Your task to perform on an android device: What's the weather going to be tomorrow? Image 0: 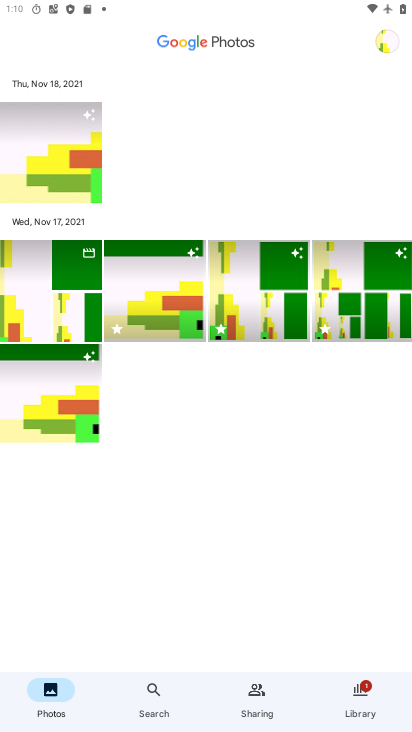
Step 0: press home button
Your task to perform on an android device: What's the weather going to be tomorrow? Image 1: 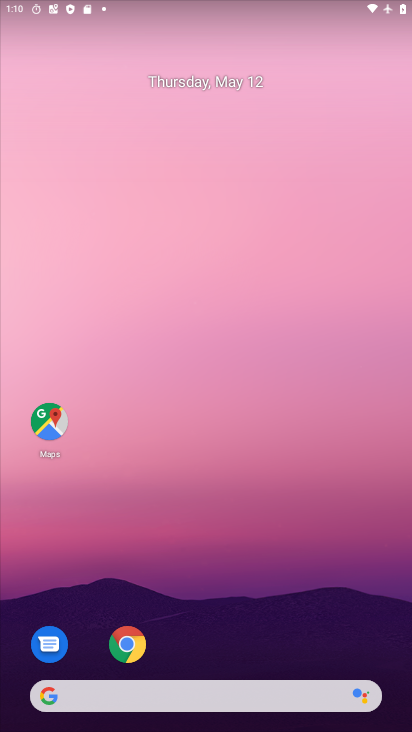
Step 1: drag from (234, 557) to (187, 0)
Your task to perform on an android device: What's the weather going to be tomorrow? Image 2: 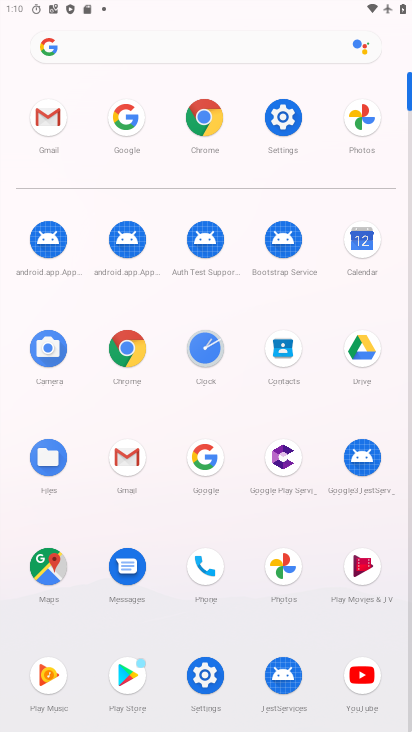
Step 2: click (203, 458)
Your task to perform on an android device: What's the weather going to be tomorrow? Image 3: 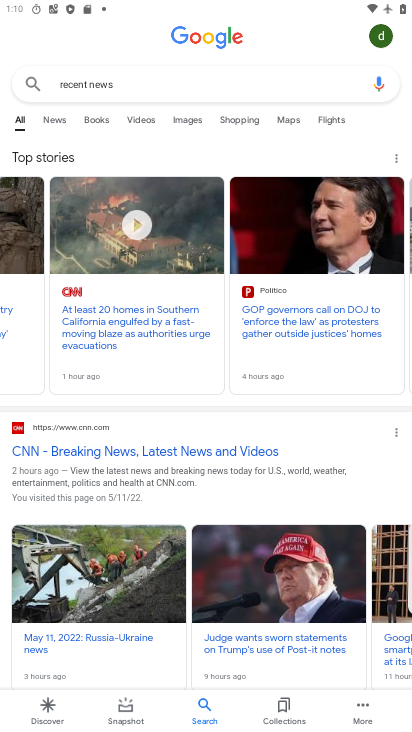
Step 3: click (131, 83)
Your task to perform on an android device: What's the weather going to be tomorrow? Image 4: 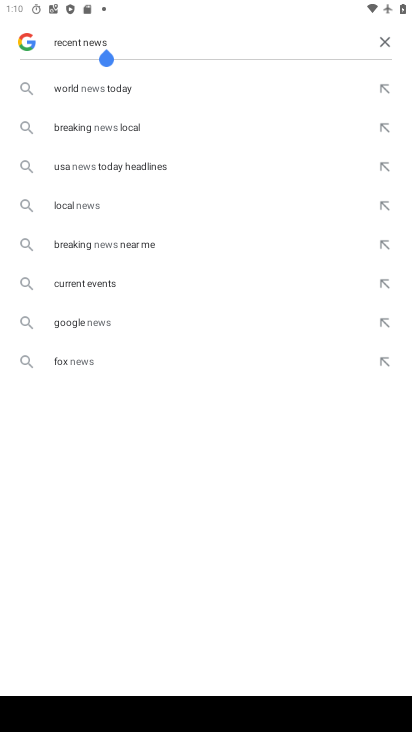
Step 4: click (379, 45)
Your task to perform on an android device: What's the weather going to be tomorrow? Image 5: 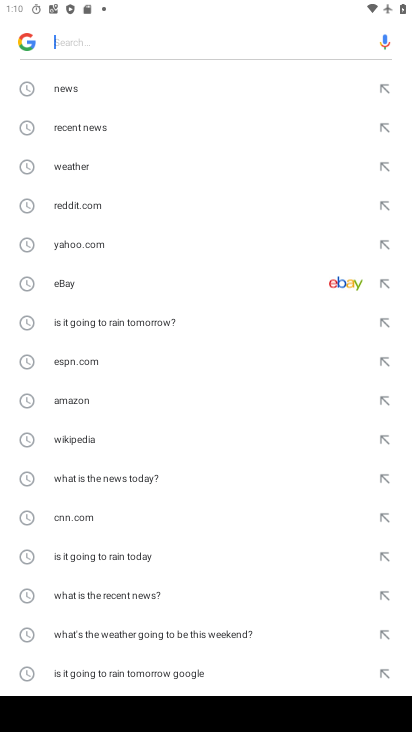
Step 5: type "what's the weather going to be tomorrow?"
Your task to perform on an android device: What's the weather going to be tomorrow? Image 6: 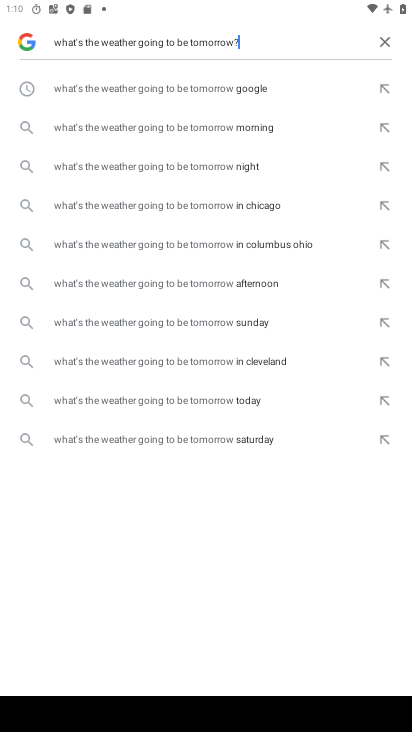
Step 6: click (213, 91)
Your task to perform on an android device: What's the weather going to be tomorrow? Image 7: 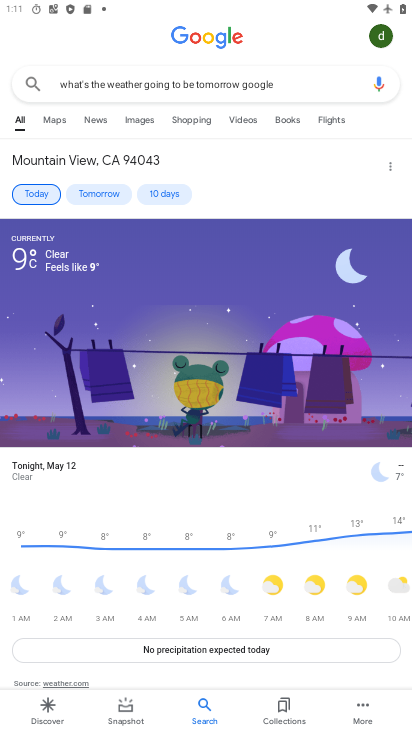
Step 7: click (95, 194)
Your task to perform on an android device: What's the weather going to be tomorrow? Image 8: 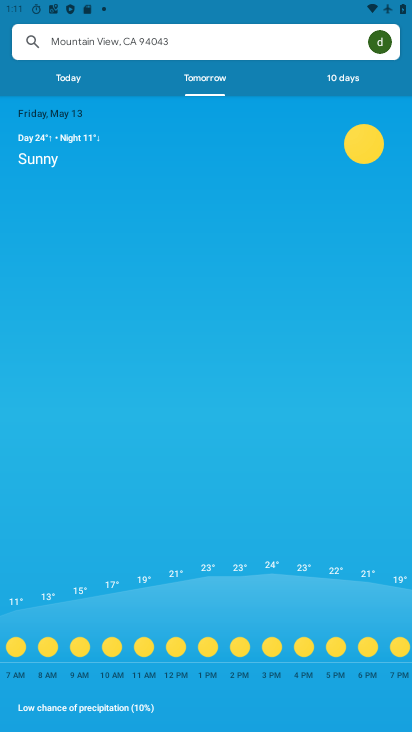
Step 8: task complete